Your task to perform on an android device: Go to internet settings Image 0: 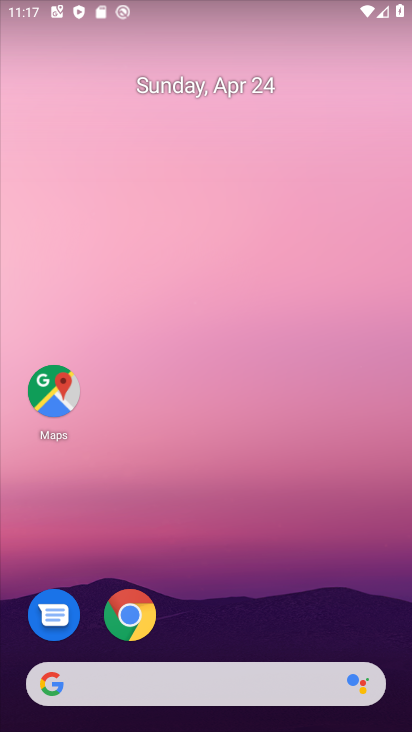
Step 0: drag from (316, 618) to (246, 134)
Your task to perform on an android device: Go to internet settings Image 1: 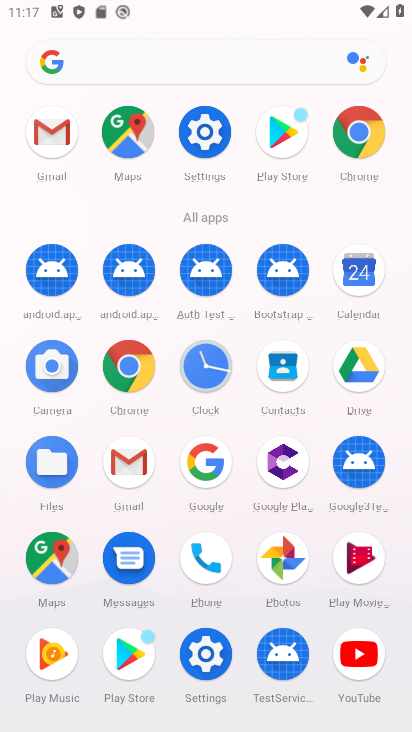
Step 1: click (190, 138)
Your task to perform on an android device: Go to internet settings Image 2: 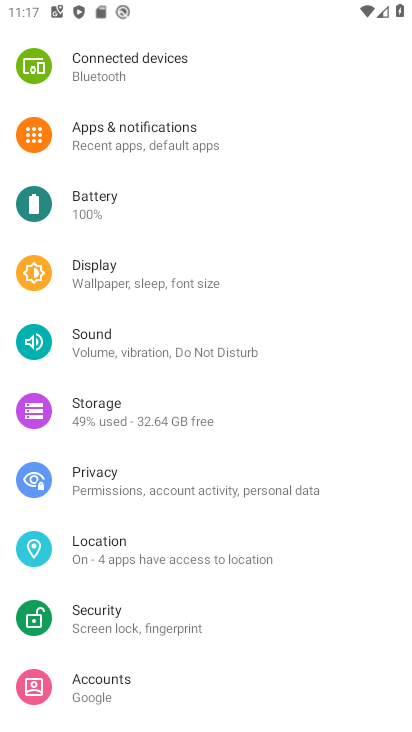
Step 2: drag from (183, 92) to (210, 325)
Your task to perform on an android device: Go to internet settings Image 3: 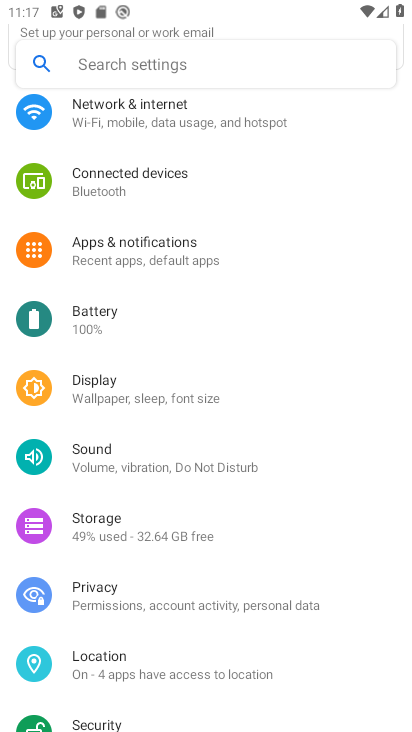
Step 3: click (278, 116)
Your task to perform on an android device: Go to internet settings Image 4: 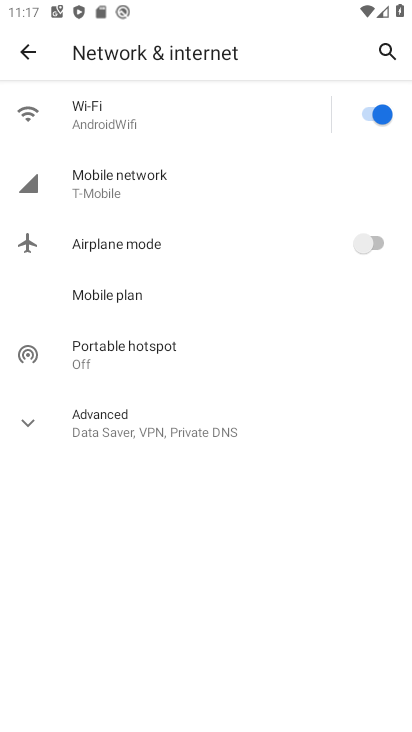
Step 4: click (251, 186)
Your task to perform on an android device: Go to internet settings Image 5: 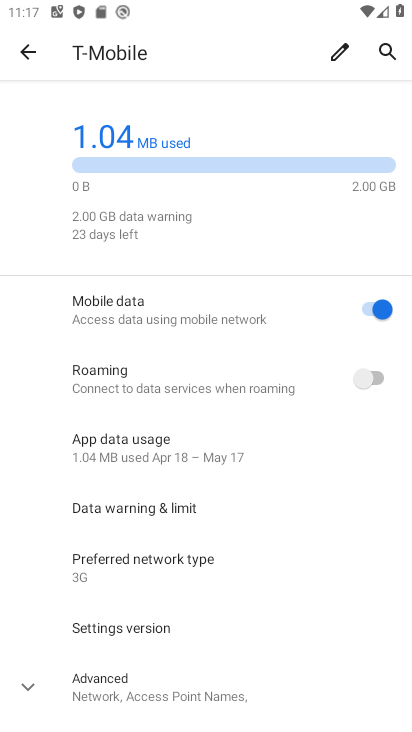
Step 5: task complete